Your task to perform on an android device: Open the phone app and click the voicemail tab. Image 0: 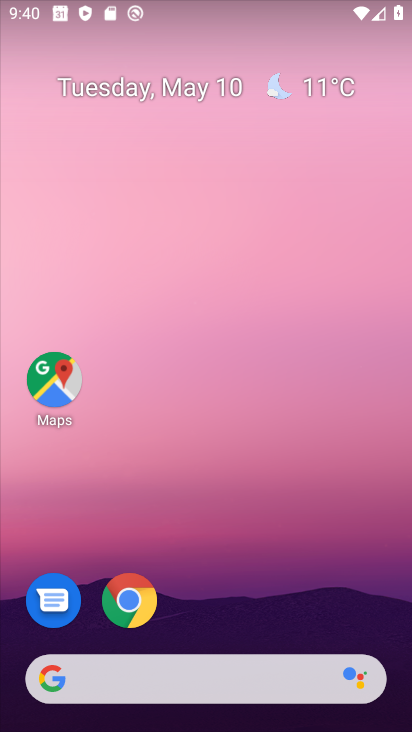
Step 0: drag from (299, 572) to (283, 20)
Your task to perform on an android device: Open the phone app and click the voicemail tab. Image 1: 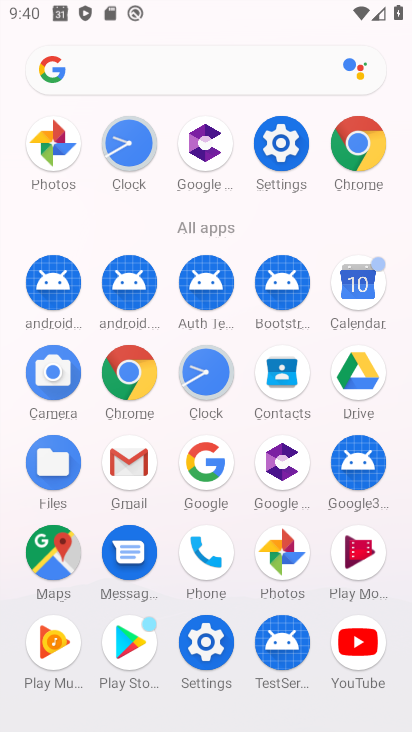
Step 1: click (220, 537)
Your task to perform on an android device: Open the phone app and click the voicemail tab. Image 2: 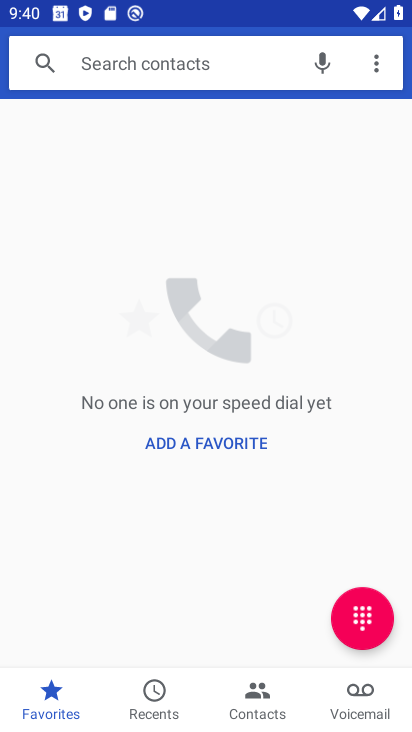
Step 2: click (360, 707)
Your task to perform on an android device: Open the phone app and click the voicemail tab. Image 3: 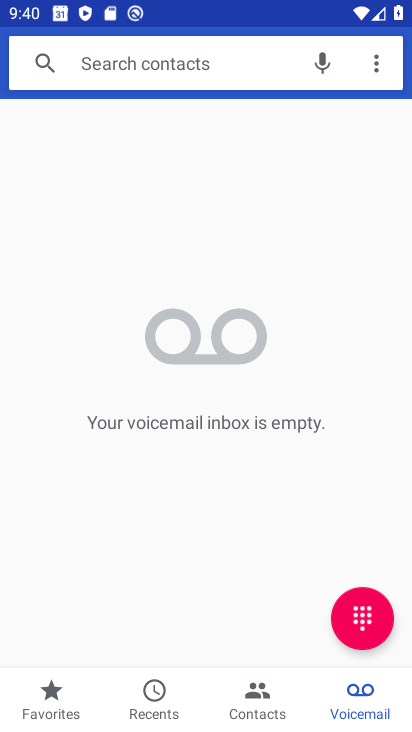
Step 3: task complete